Your task to perform on an android device: uninstall "Airtel Thanks" Image 0: 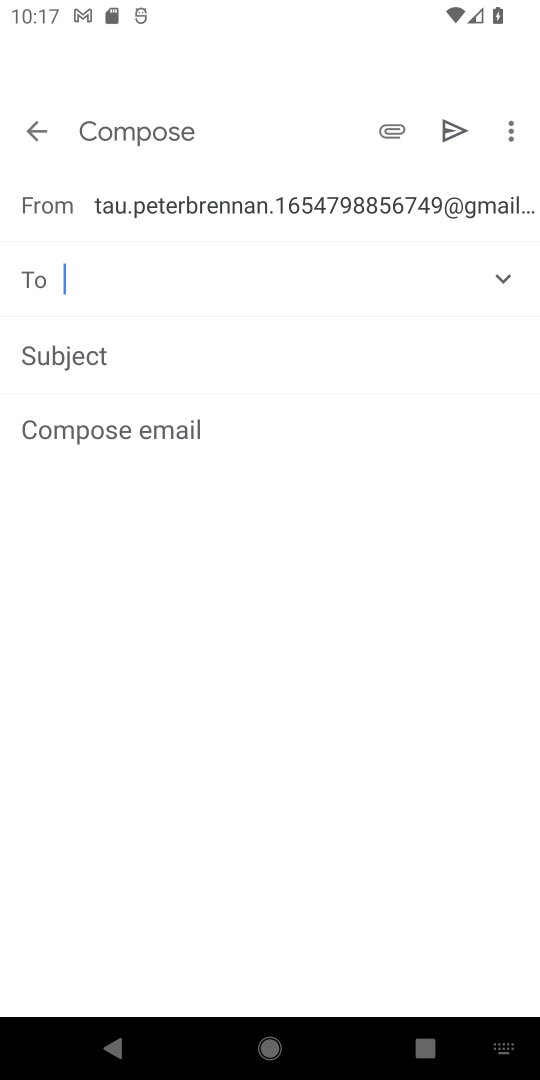
Step 0: press home button
Your task to perform on an android device: uninstall "Airtel Thanks" Image 1: 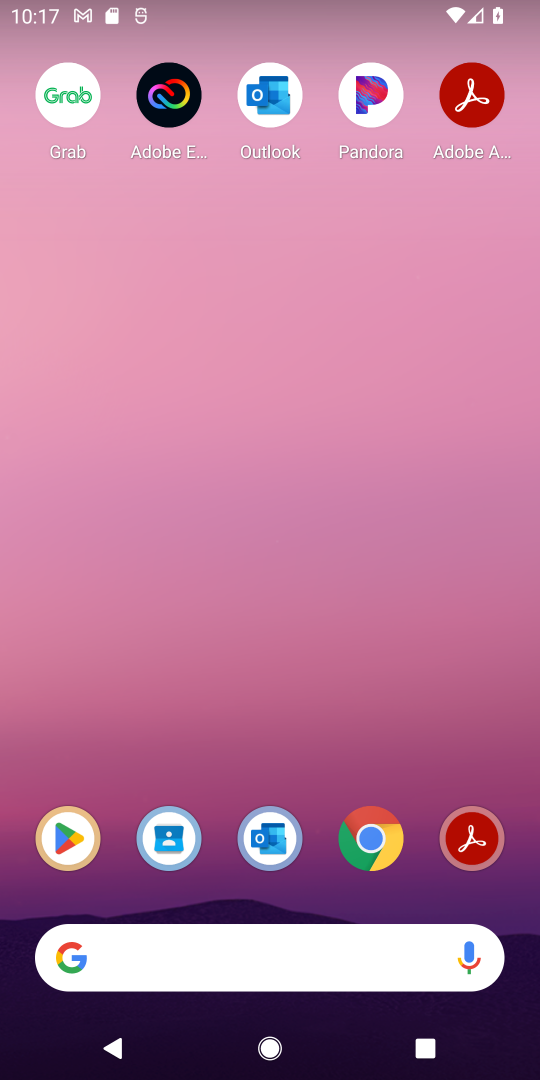
Step 1: click (77, 864)
Your task to perform on an android device: uninstall "Airtel Thanks" Image 2: 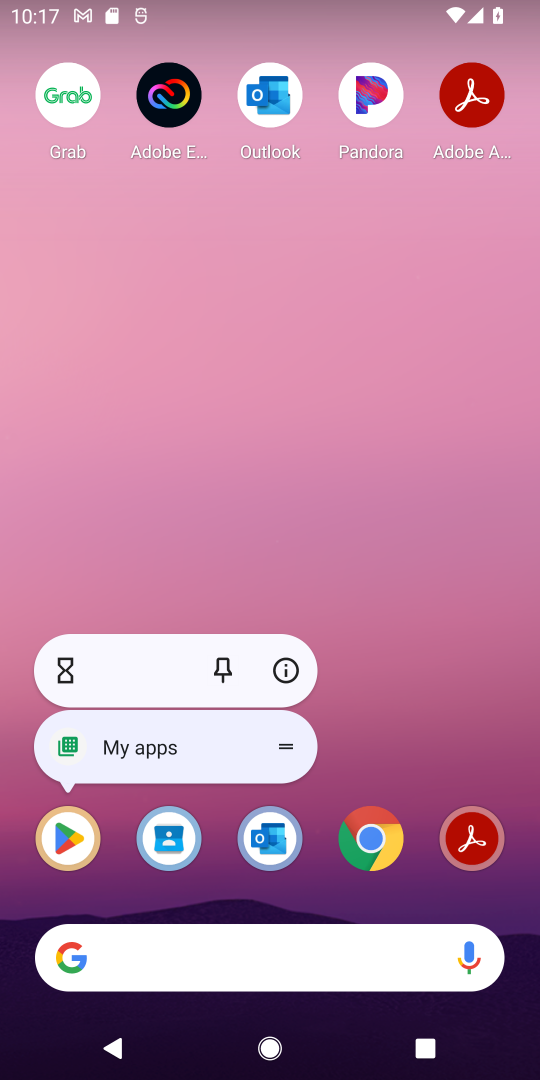
Step 2: click (77, 863)
Your task to perform on an android device: uninstall "Airtel Thanks" Image 3: 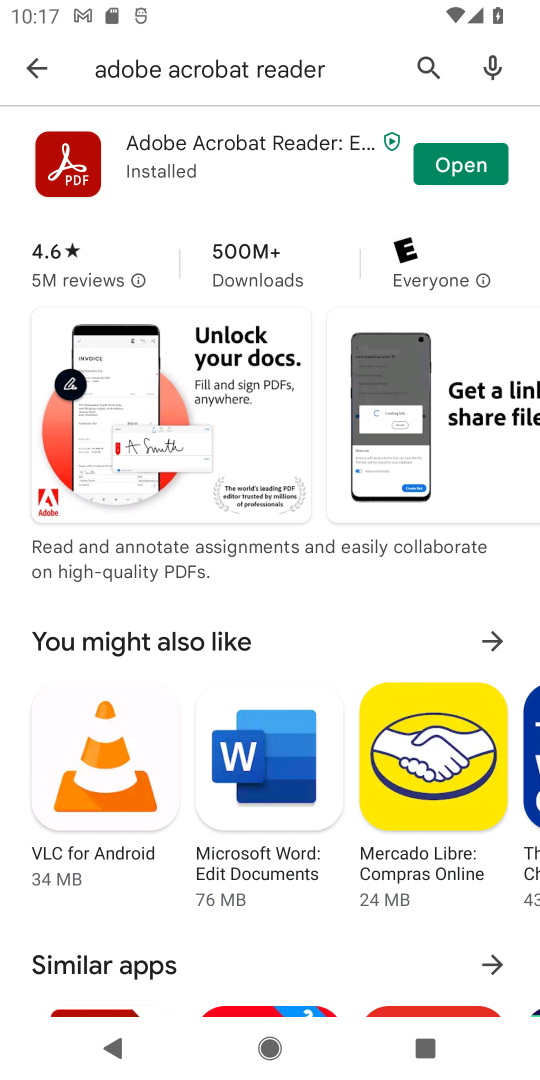
Step 3: click (248, 76)
Your task to perform on an android device: uninstall "Airtel Thanks" Image 4: 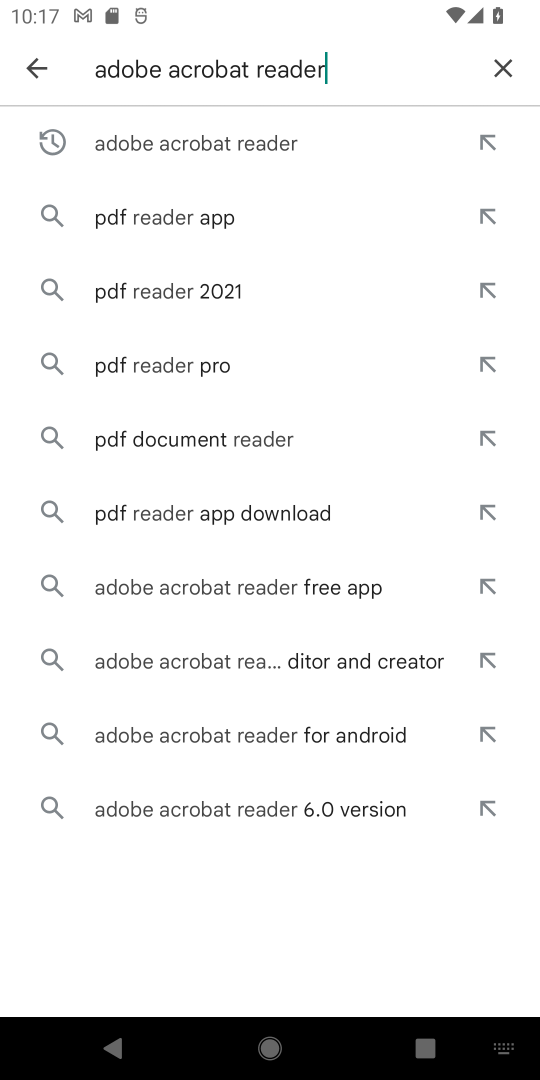
Step 4: click (496, 73)
Your task to perform on an android device: uninstall "Airtel Thanks" Image 5: 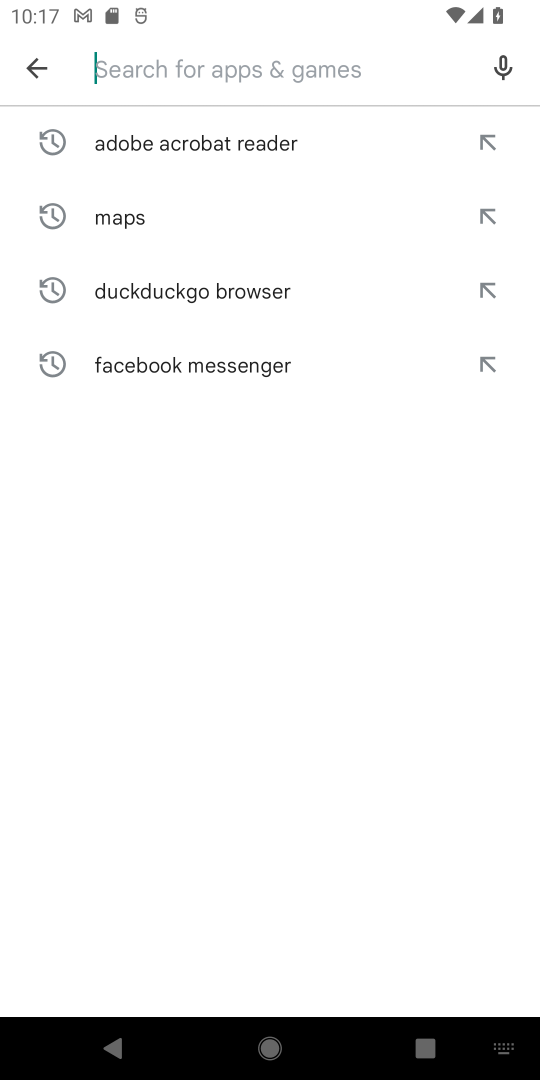
Step 5: type "Airtel Thanks"
Your task to perform on an android device: uninstall "Airtel Thanks" Image 6: 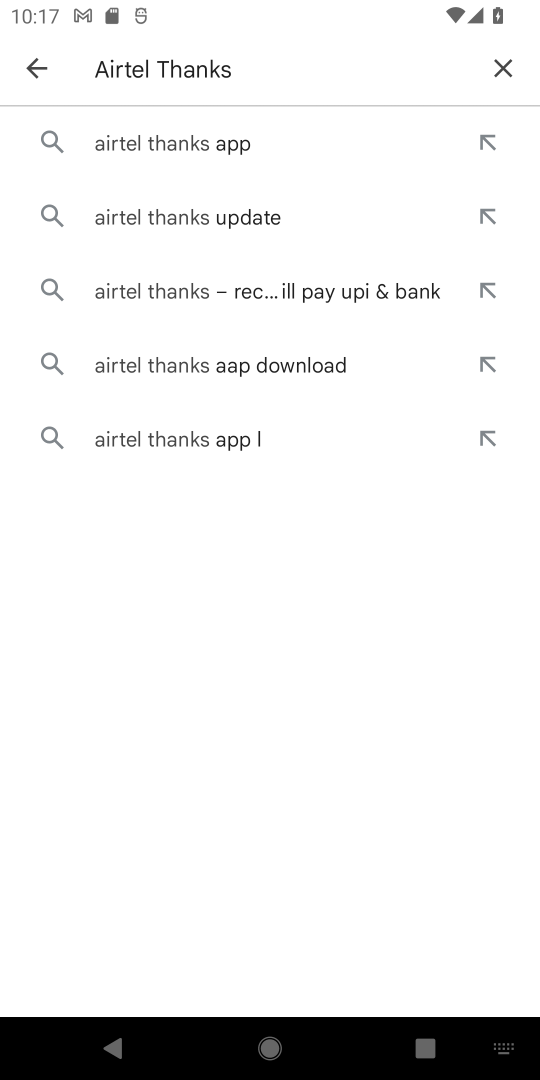
Step 6: click (227, 159)
Your task to perform on an android device: uninstall "Airtel Thanks" Image 7: 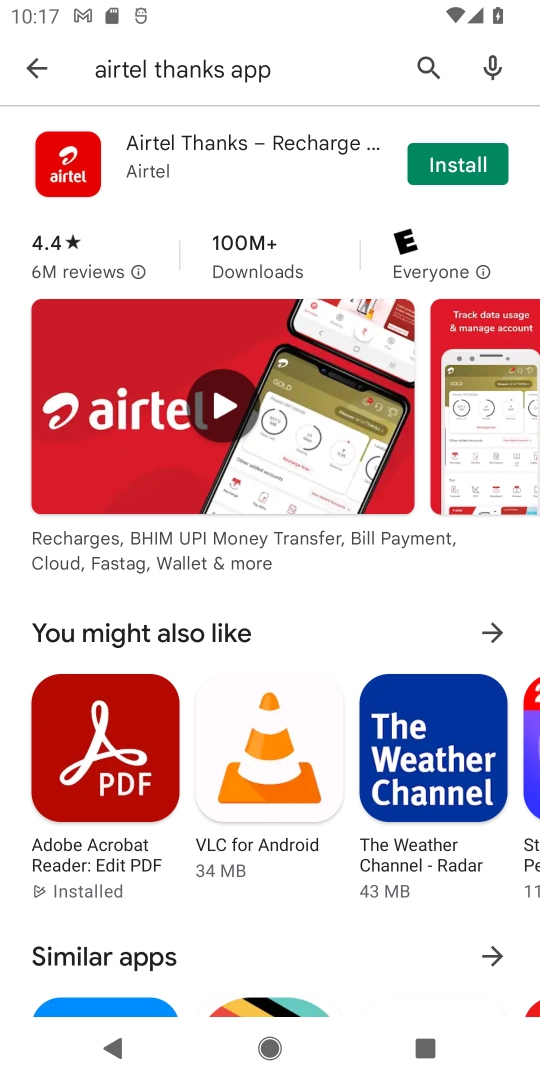
Step 7: task complete